Your task to perform on an android device: Open eBay Image 0: 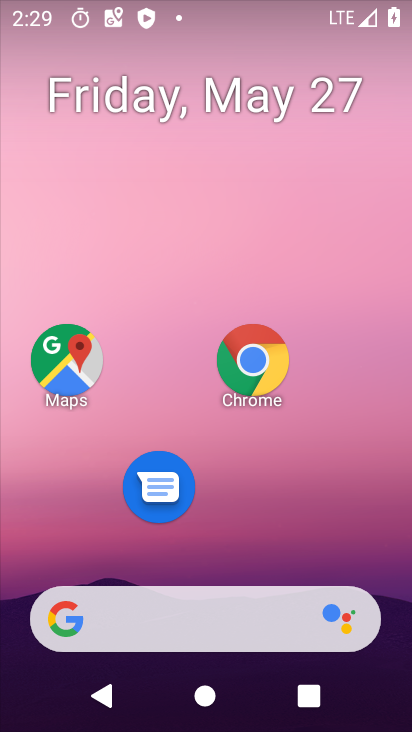
Step 0: drag from (270, 450) to (327, 34)
Your task to perform on an android device: Open eBay Image 1: 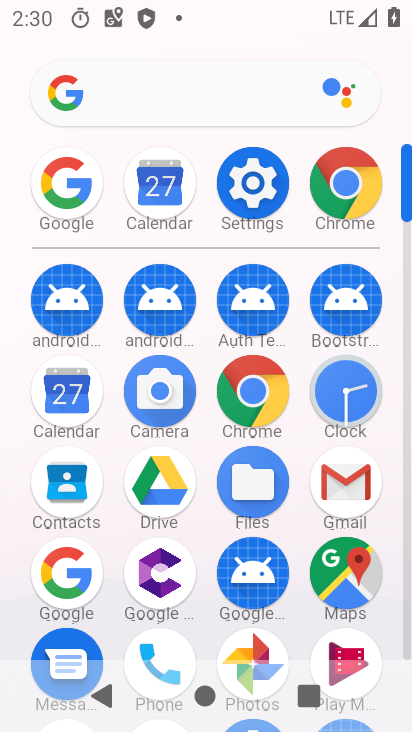
Step 1: drag from (116, 544) to (133, 200)
Your task to perform on an android device: Open eBay Image 2: 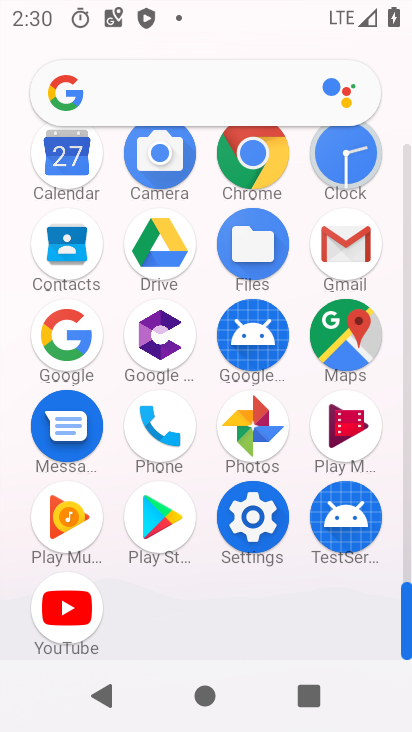
Step 2: click (66, 333)
Your task to perform on an android device: Open eBay Image 3: 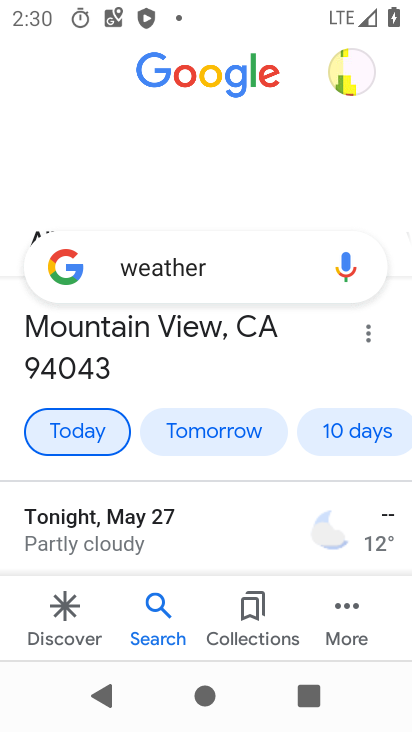
Step 3: click (245, 263)
Your task to perform on an android device: Open eBay Image 4: 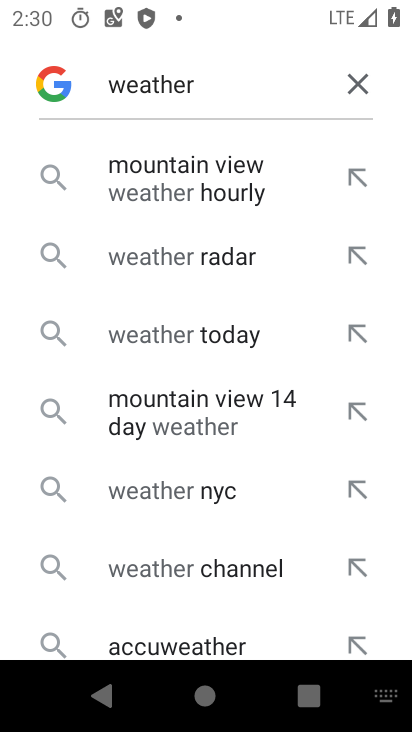
Step 4: click (357, 83)
Your task to perform on an android device: Open eBay Image 5: 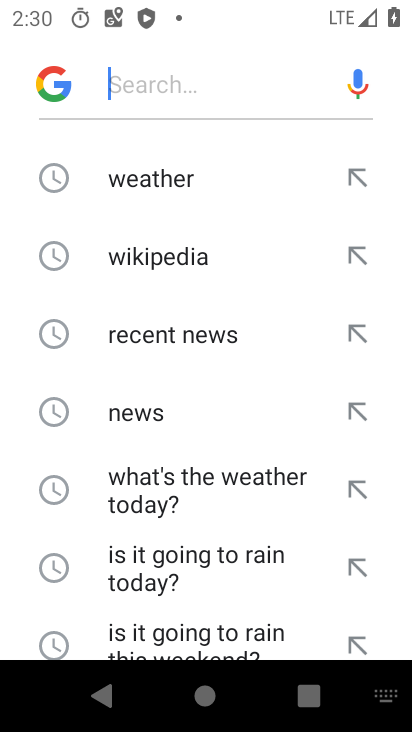
Step 5: drag from (222, 505) to (226, 108)
Your task to perform on an android device: Open eBay Image 6: 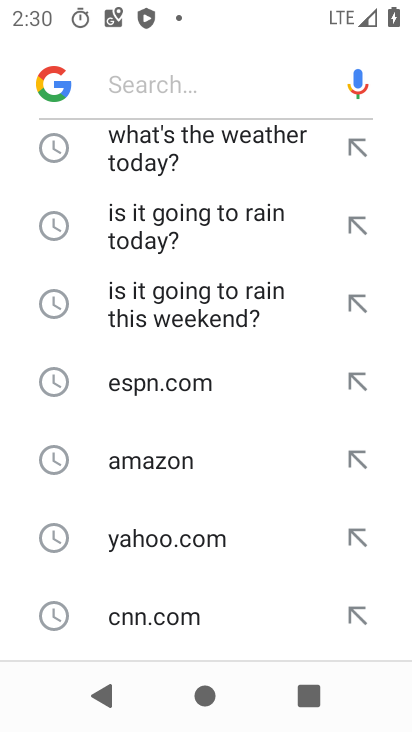
Step 6: drag from (201, 581) to (245, 150)
Your task to perform on an android device: Open eBay Image 7: 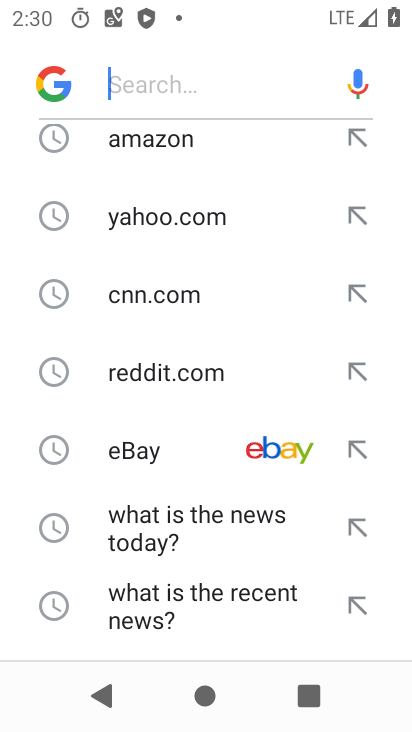
Step 7: click (163, 449)
Your task to perform on an android device: Open eBay Image 8: 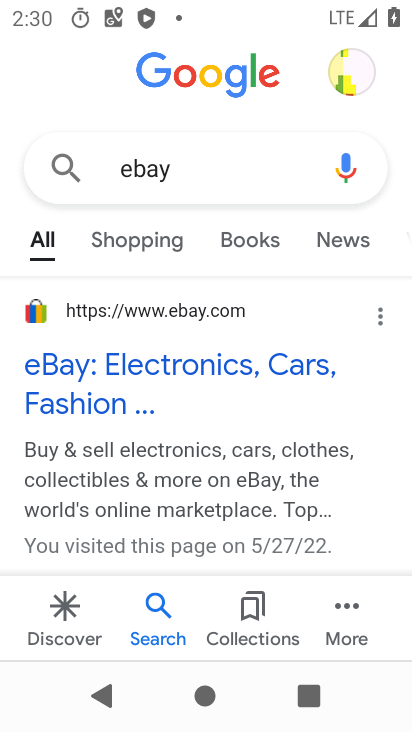
Step 8: task complete